Your task to perform on an android device: Open Google Image 0: 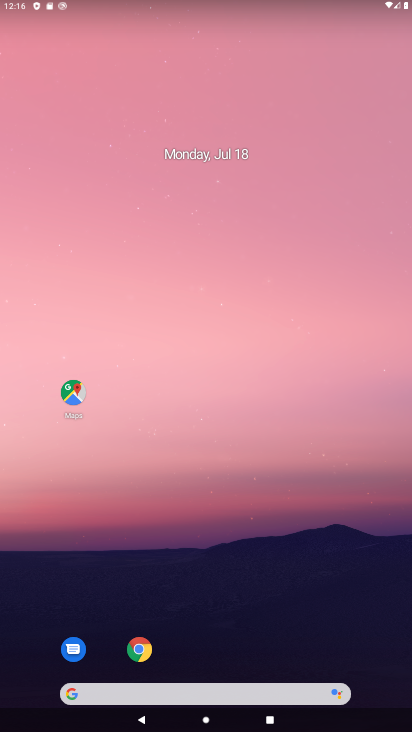
Step 0: click (134, 686)
Your task to perform on an android device: Open Google Image 1: 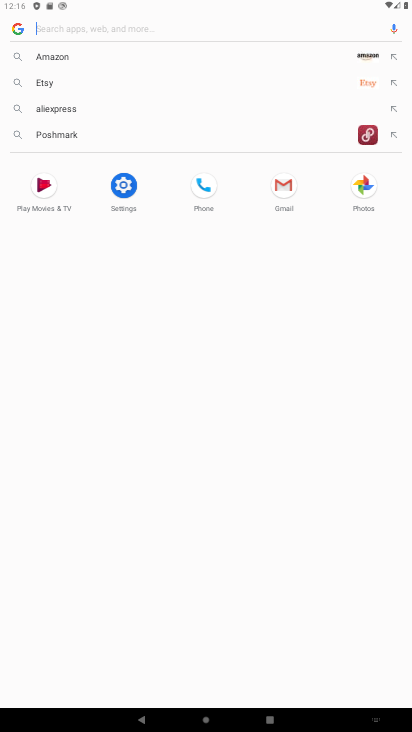
Step 1: task complete